Your task to perform on an android device: Open Maps and search for coffee Image 0: 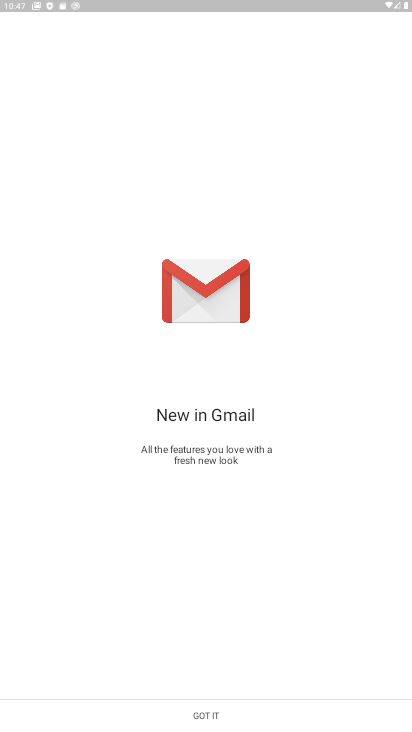
Step 0: press home button
Your task to perform on an android device: Open Maps and search for coffee Image 1: 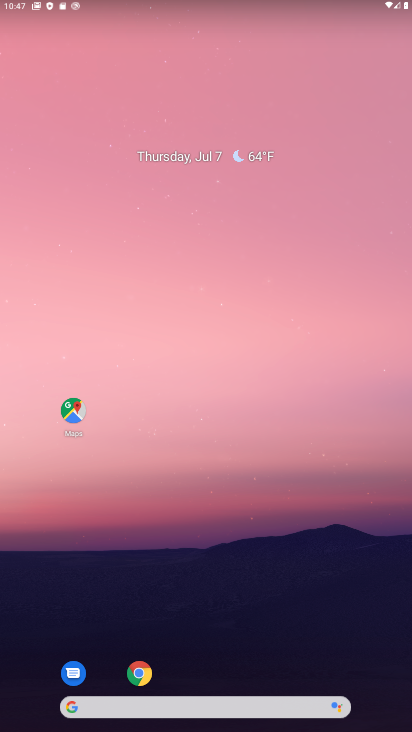
Step 1: click (71, 429)
Your task to perform on an android device: Open Maps and search for coffee Image 2: 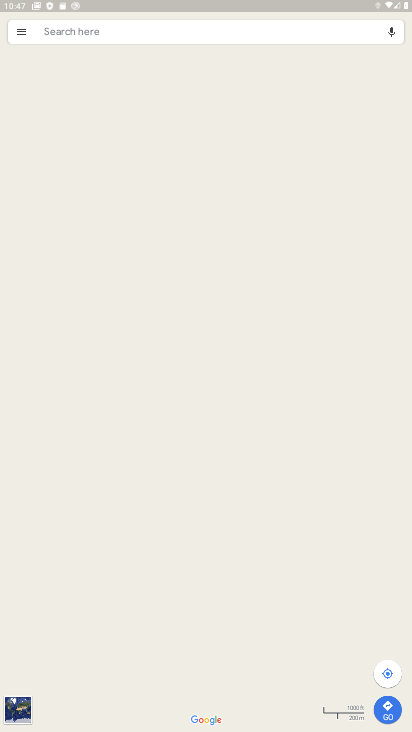
Step 2: click (194, 39)
Your task to perform on an android device: Open Maps and search for coffee Image 3: 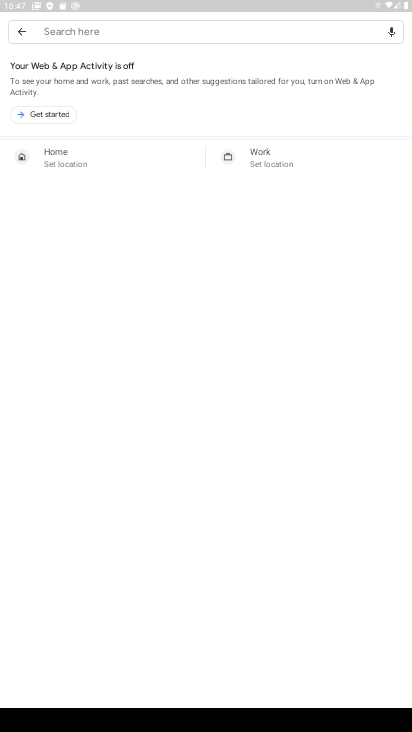
Step 3: type "coffee"
Your task to perform on an android device: Open Maps and search for coffee Image 4: 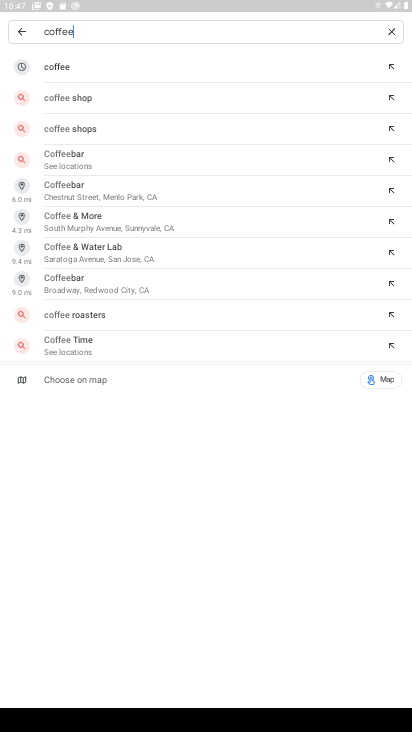
Step 4: click (144, 68)
Your task to perform on an android device: Open Maps and search for coffee Image 5: 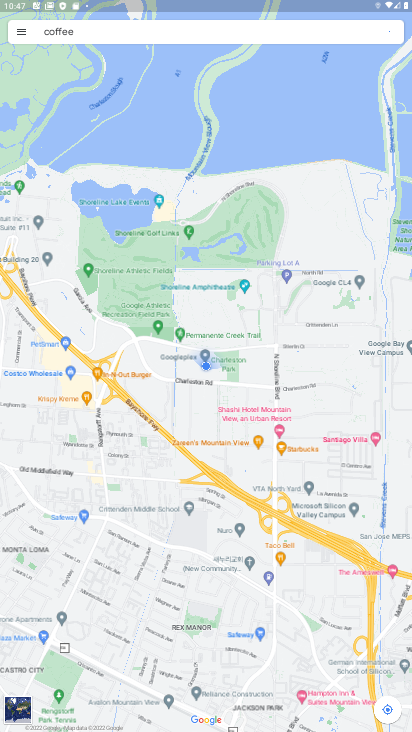
Step 5: task complete